Your task to perform on an android device: What's the weather? Image 0: 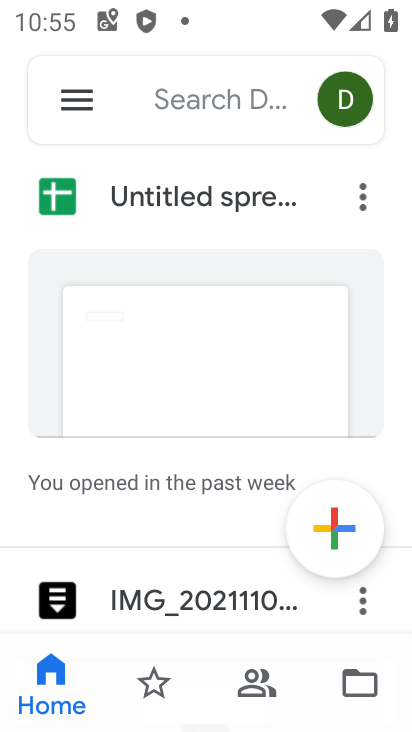
Step 0: press home button
Your task to perform on an android device: What's the weather? Image 1: 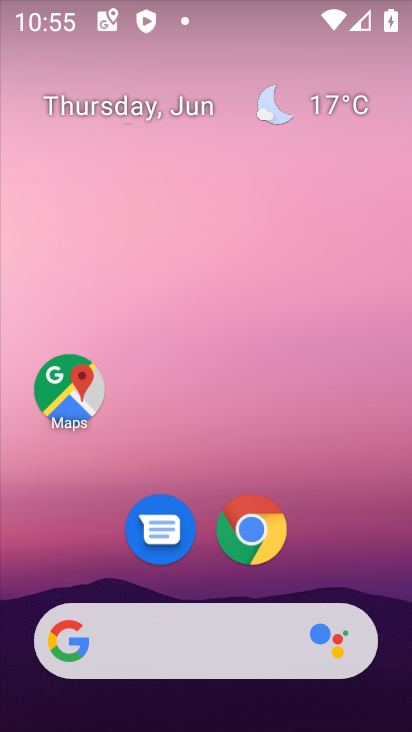
Step 1: click (179, 657)
Your task to perform on an android device: What's the weather? Image 2: 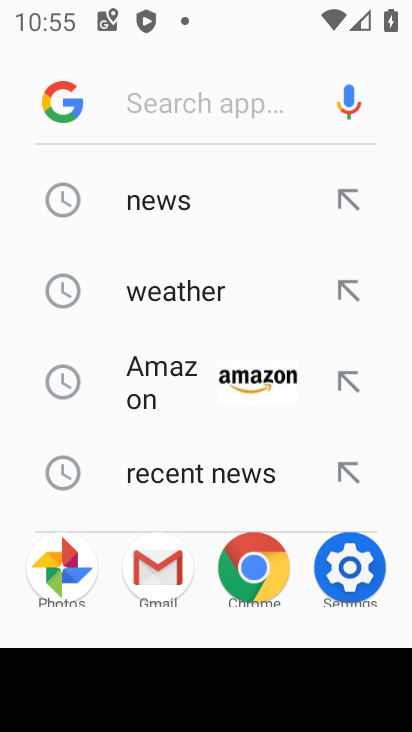
Step 2: type "what's the weather"
Your task to perform on an android device: What's the weather? Image 3: 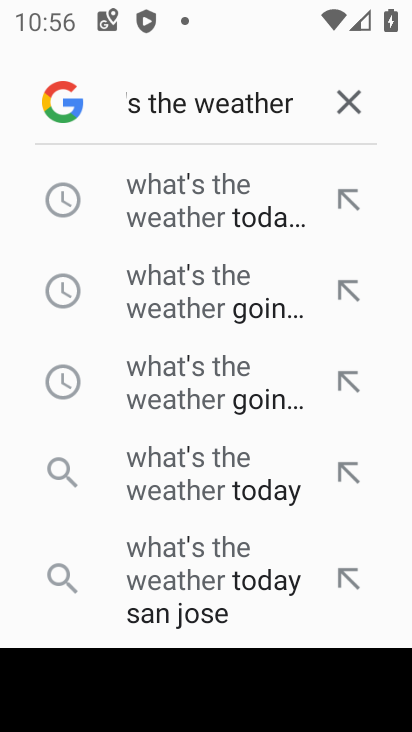
Step 3: drag from (400, 385) to (120, 162)
Your task to perform on an android device: What's the weather? Image 4: 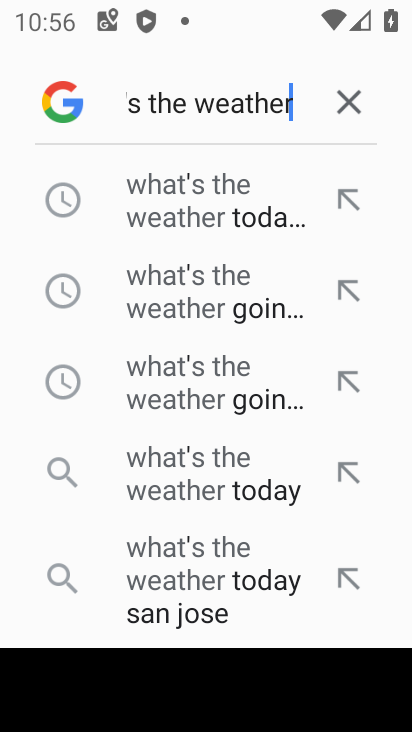
Step 4: drag from (400, 385) to (141, 136)
Your task to perform on an android device: What's the weather? Image 5: 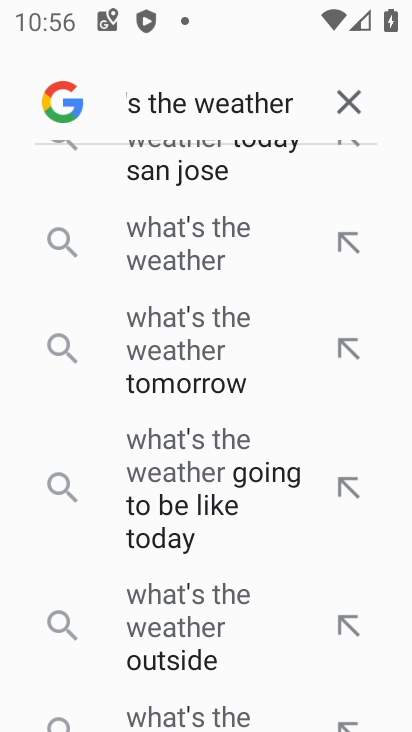
Step 5: click (196, 260)
Your task to perform on an android device: What's the weather? Image 6: 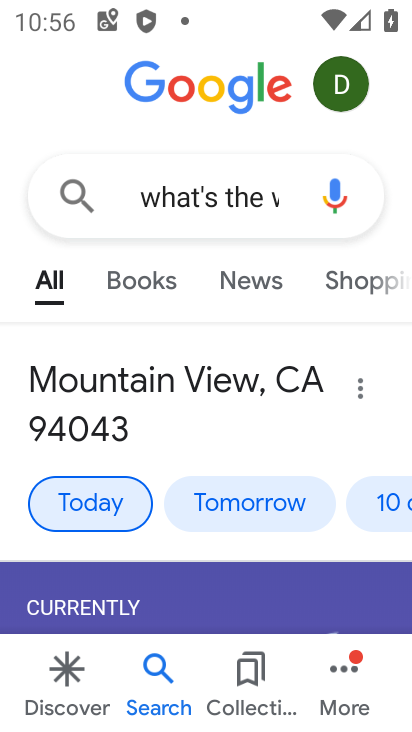
Step 6: task complete